Your task to perform on an android device: search for starred emails in the gmail app Image 0: 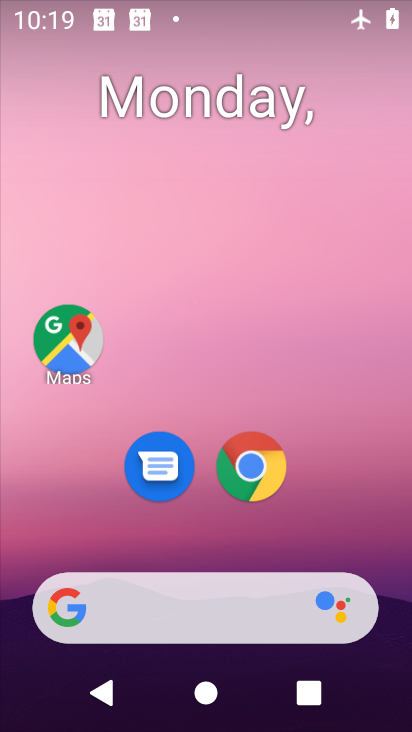
Step 0: drag from (357, 536) to (130, 25)
Your task to perform on an android device: search for starred emails in the gmail app Image 1: 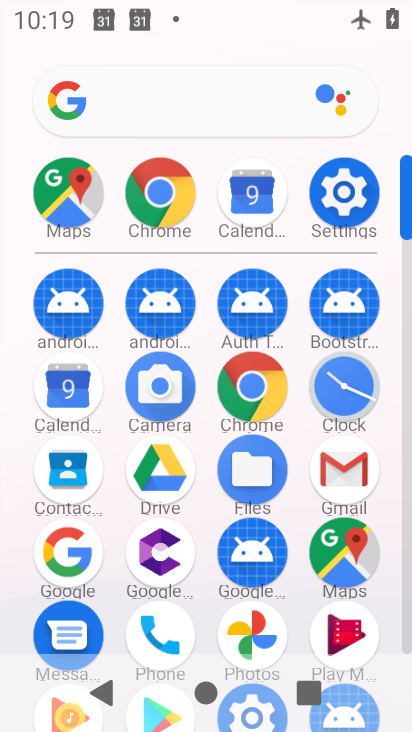
Step 1: click (347, 469)
Your task to perform on an android device: search for starred emails in the gmail app Image 2: 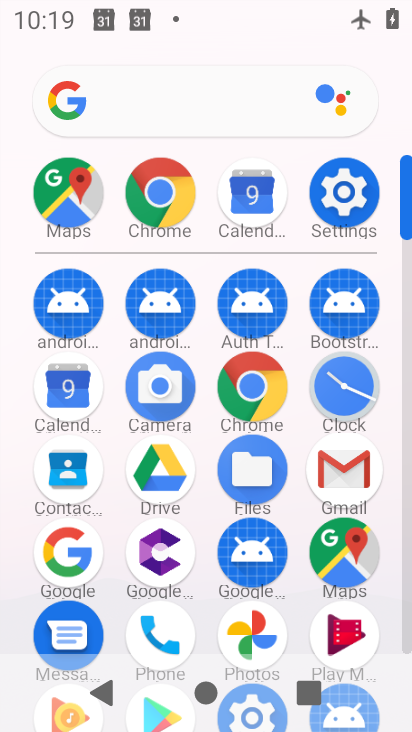
Step 2: click (347, 469)
Your task to perform on an android device: search for starred emails in the gmail app Image 3: 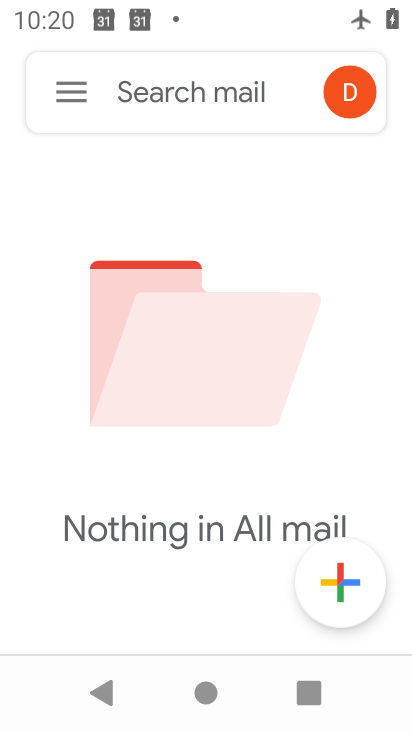
Step 3: click (71, 92)
Your task to perform on an android device: search for starred emails in the gmail app Image 4: 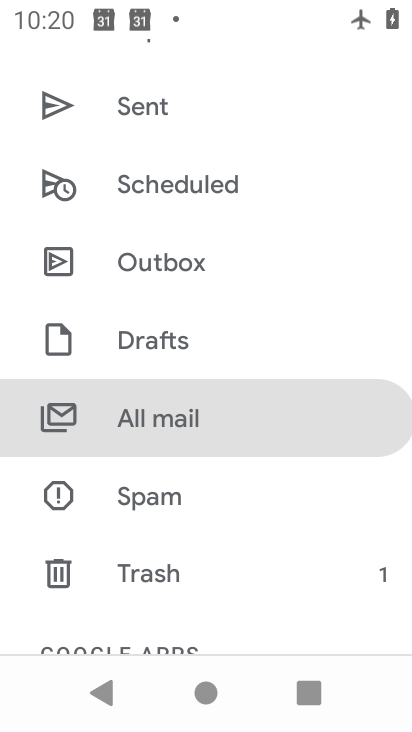
Step 4: drag from (194, 538) to (214, 242)
Your task to perform on an android device: search for starred emails in the gmail app Image 5: 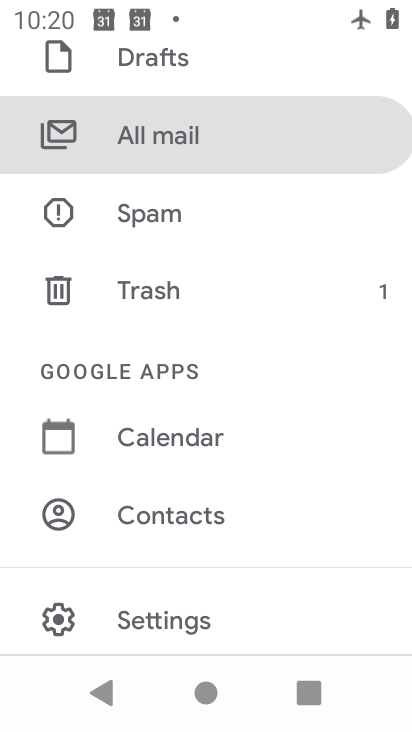
Step 5: drag from (281, 439) to (250, 241)
Your task to perform on an android device: search for starred emails in the gmail app Image 6: 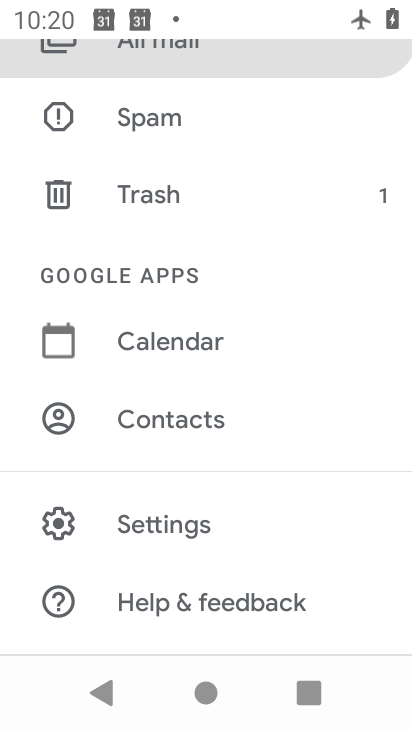
Step 6: drag from (223, 508) to (227, 173)
Your task to perform on an android device: search for starred emails in the gmail app Image 7: 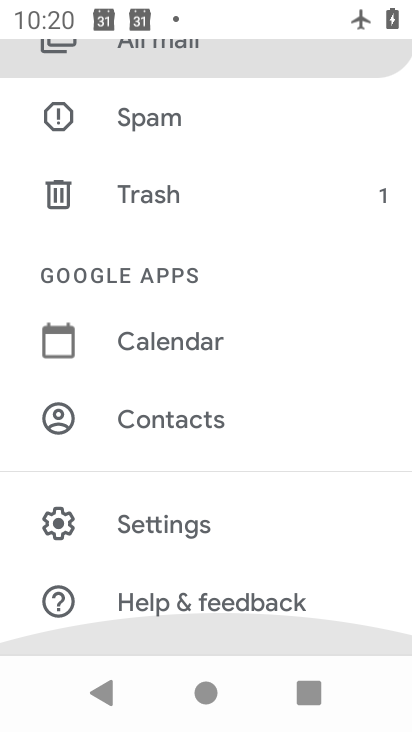
Step 7: drag from (283, 359) to (242, 25)
Your task to perform on an android device: search for starred emails in the gmail app Image 8: 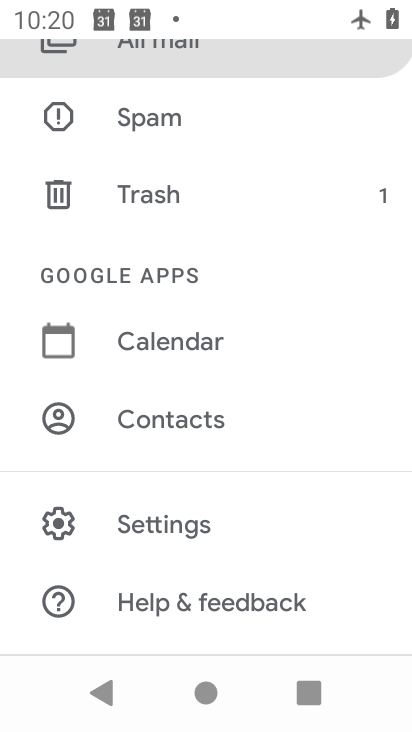
Step 8: drag from (208, 183) to (258, 516)
Your task to perform on an android device: search for starred emails in the gmail app Image 9: 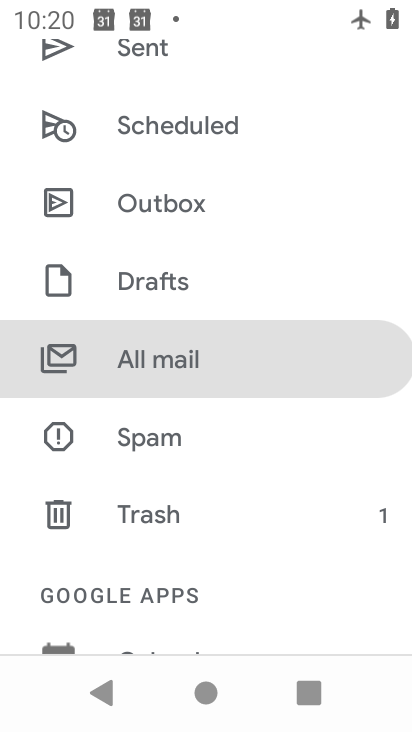
Step 9: drag from (217, 263) to (253, 535)
Your task to perform on an android device: search for starred emails in the gmail app Image 10: 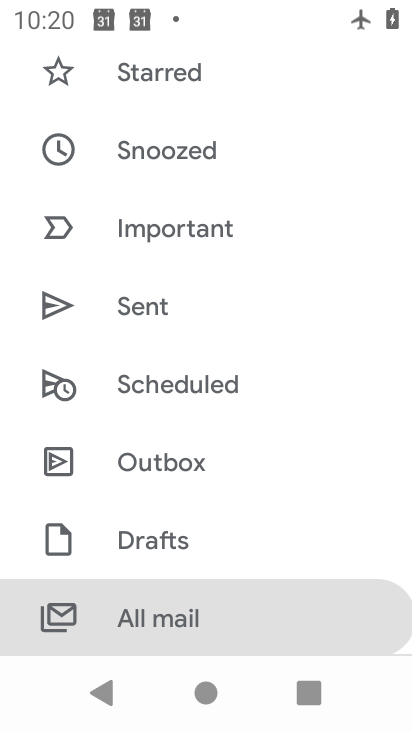
Step 10: drag from (236, 266) to (254, 591)
Your task to perform on an android device: search for starred emails in the gmail app Image 11: 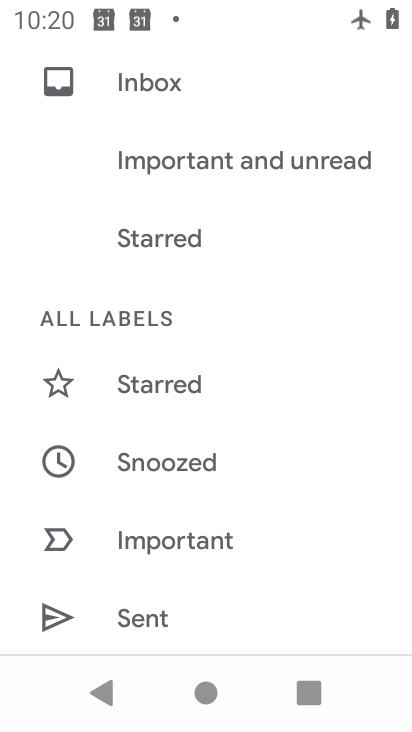
Step 11: click (131, 378)
Your task to perform on an android device: search for starred emails in the gmail app Image 12: 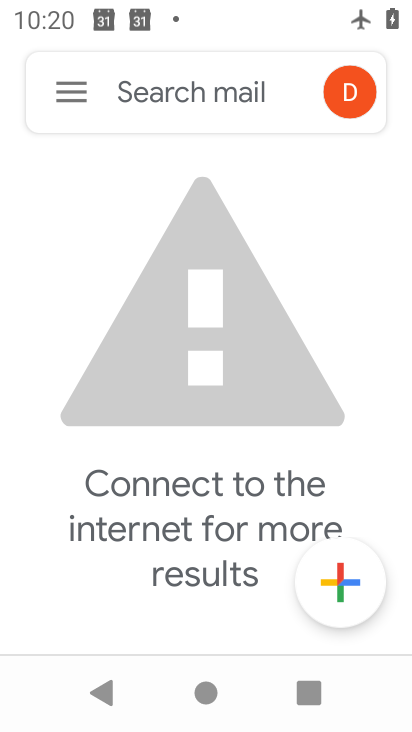
Step 12: task complete